Your task to perform on an android device: open app "Fetch Rewards" Image 0: 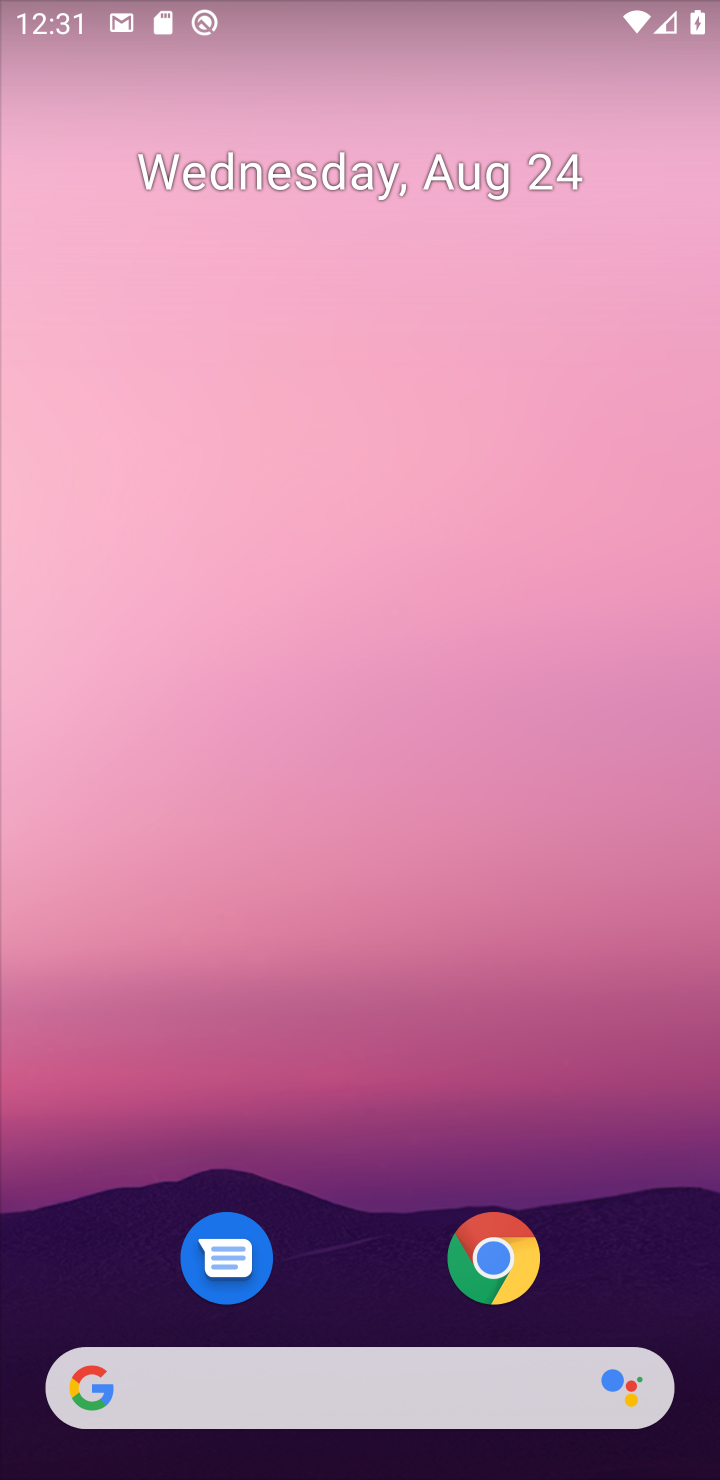
Step 0: drag from (357, 1177) to (578, 319)
Your task to perform on an android device: open app "Fetch Rewards" Image 1: 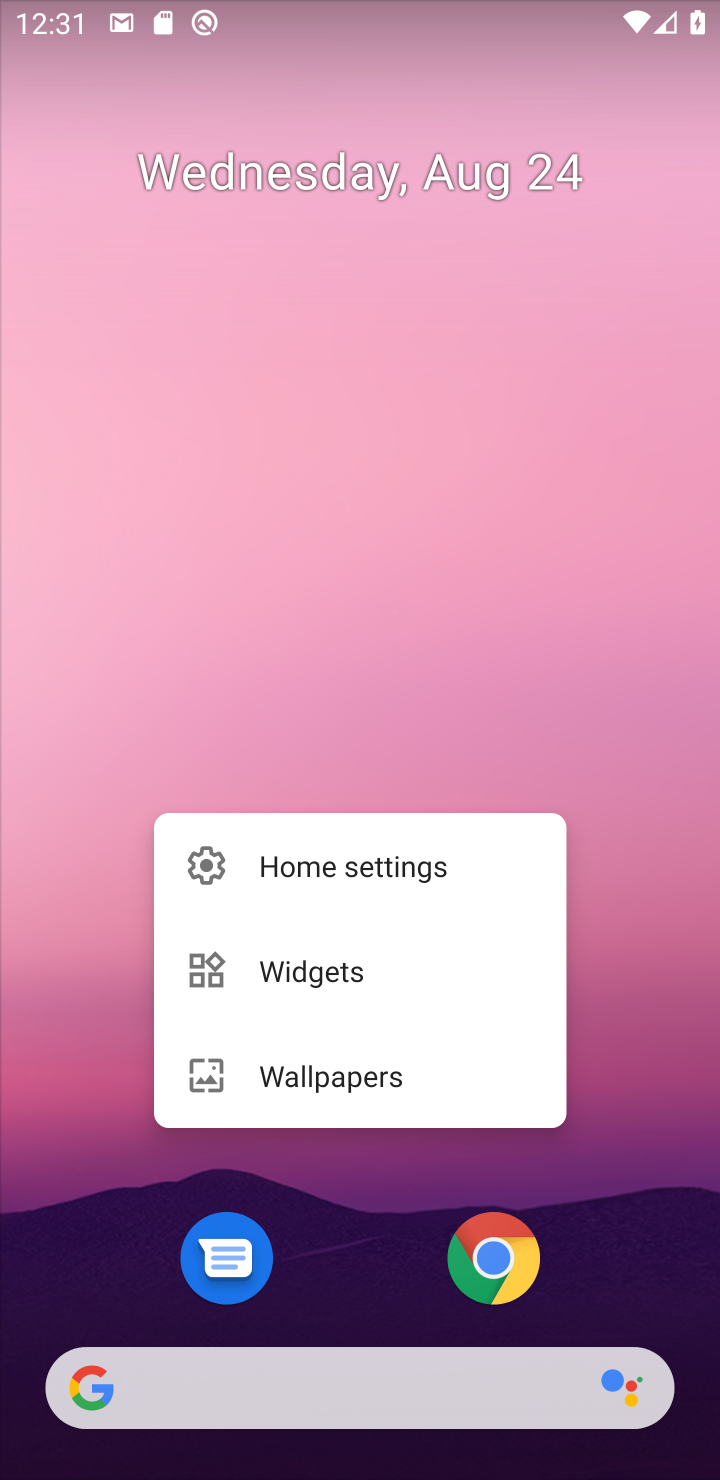
Step 1: drag from (381, 1261) to (463, 57)
Your task to perform on an android device: open app "Fetch Rewards" Image 2: 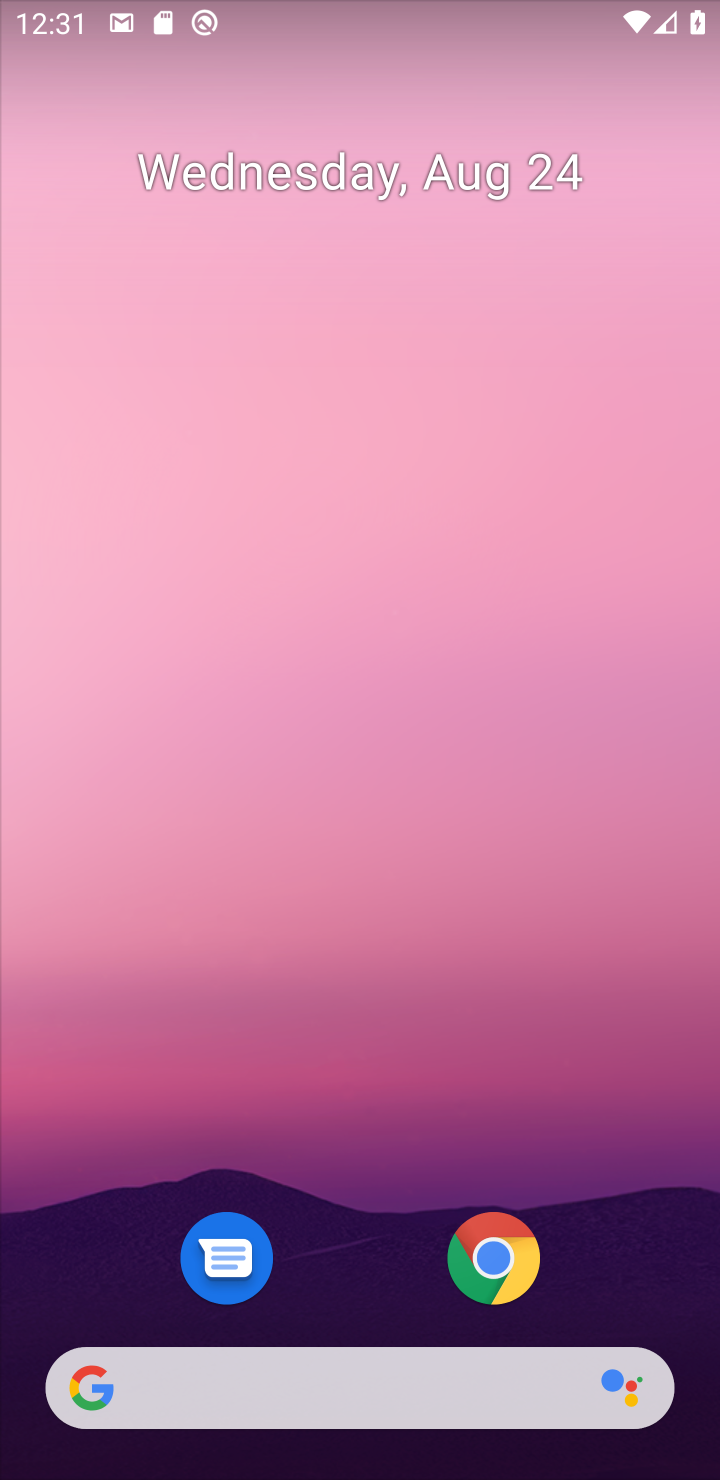
Step 2: drag from (376, 409) to (474, 17)
Your task to perform on an android device: open app "Fetch Rewards" Image 3: 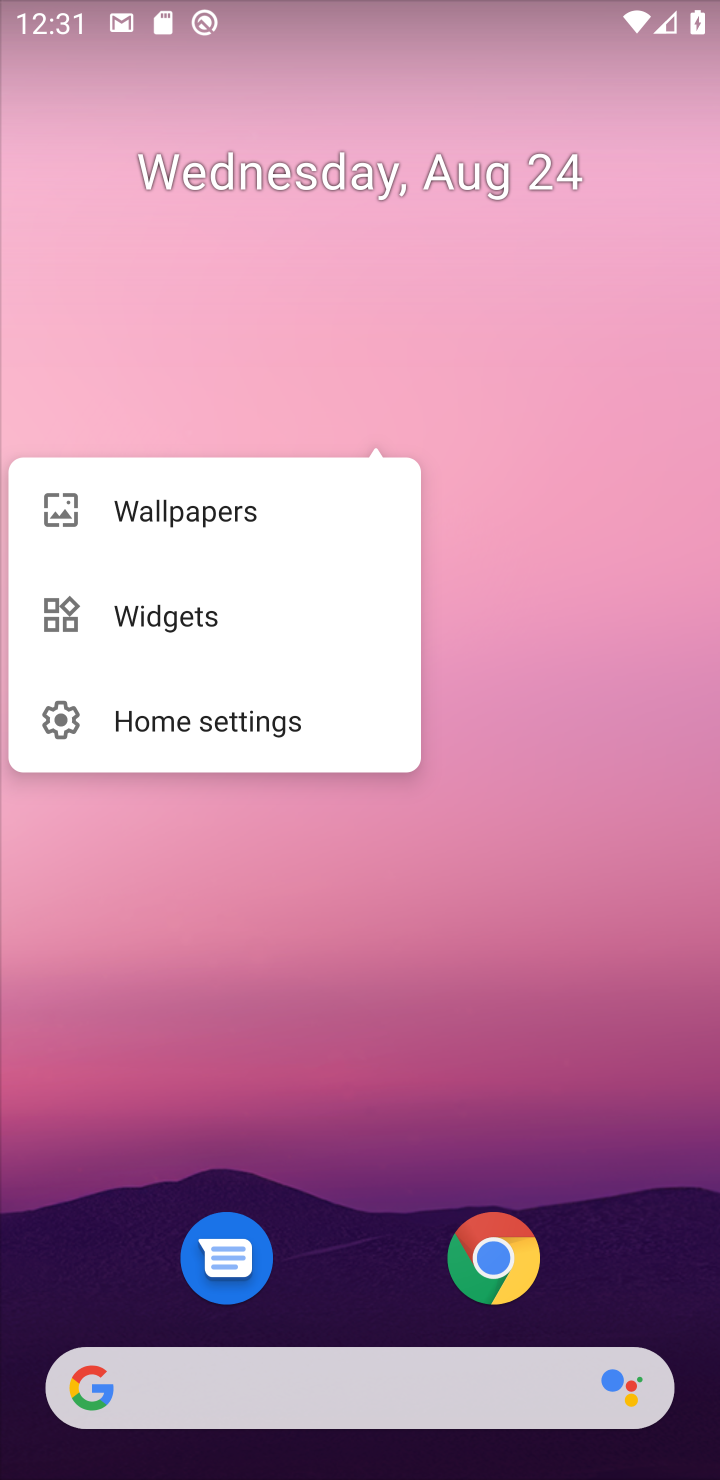
Step 3: click (492, 847)
Your task to perform on an android device: open app "Fetch Rewards" Image 4: 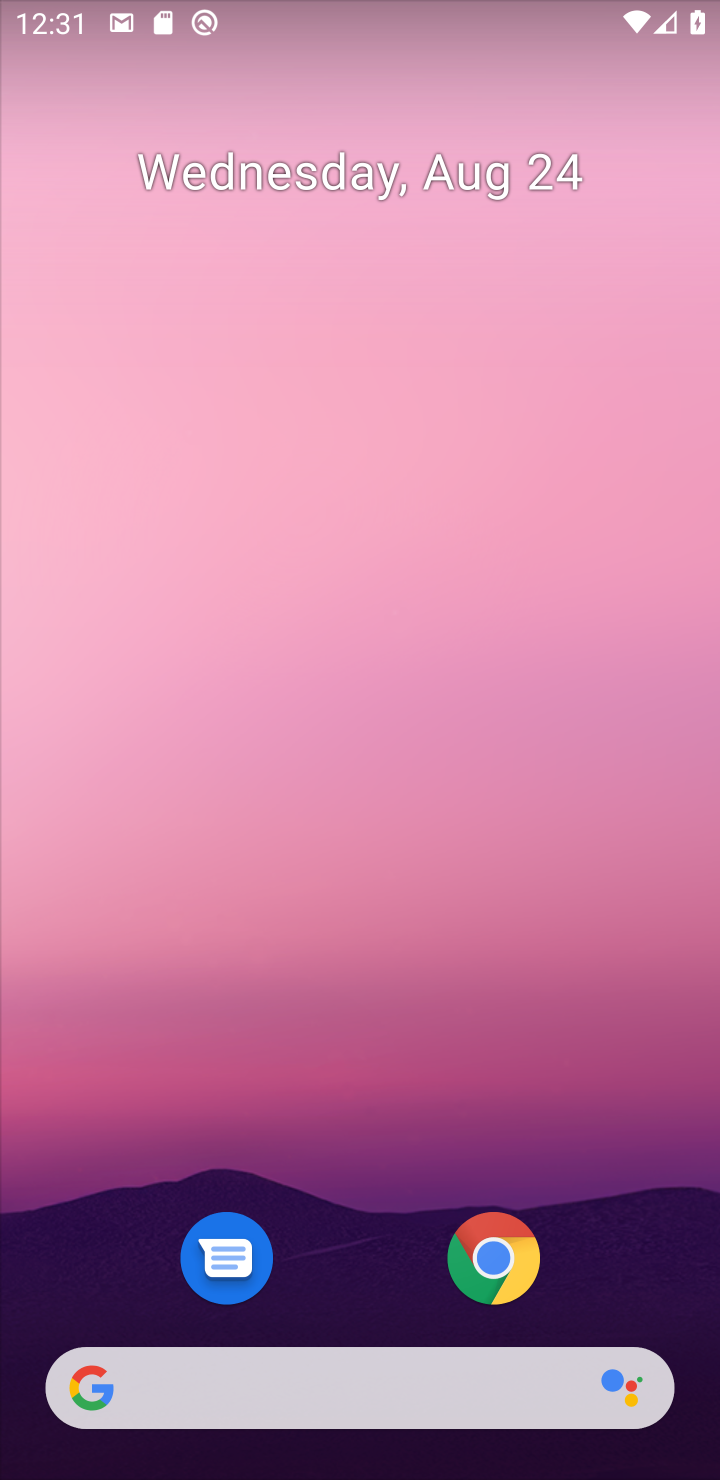
Step 4: drag from (351, 1298) to (318, 552)
Your task to perform on an android device: open app "Fetch Rewards" Image 5: 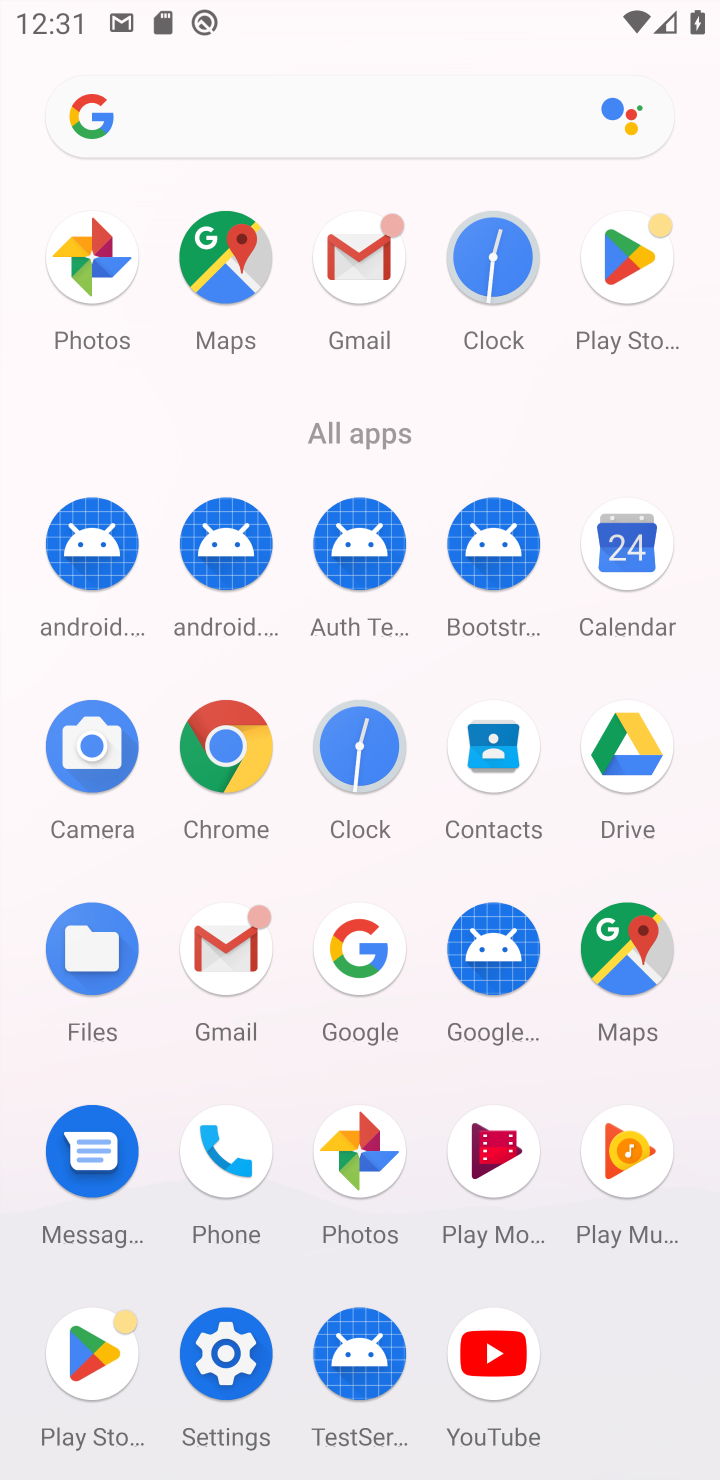
Step 5: click (93, 1346)
Your task to perform on an android device: open app "Fetch Rewards" Image 6: 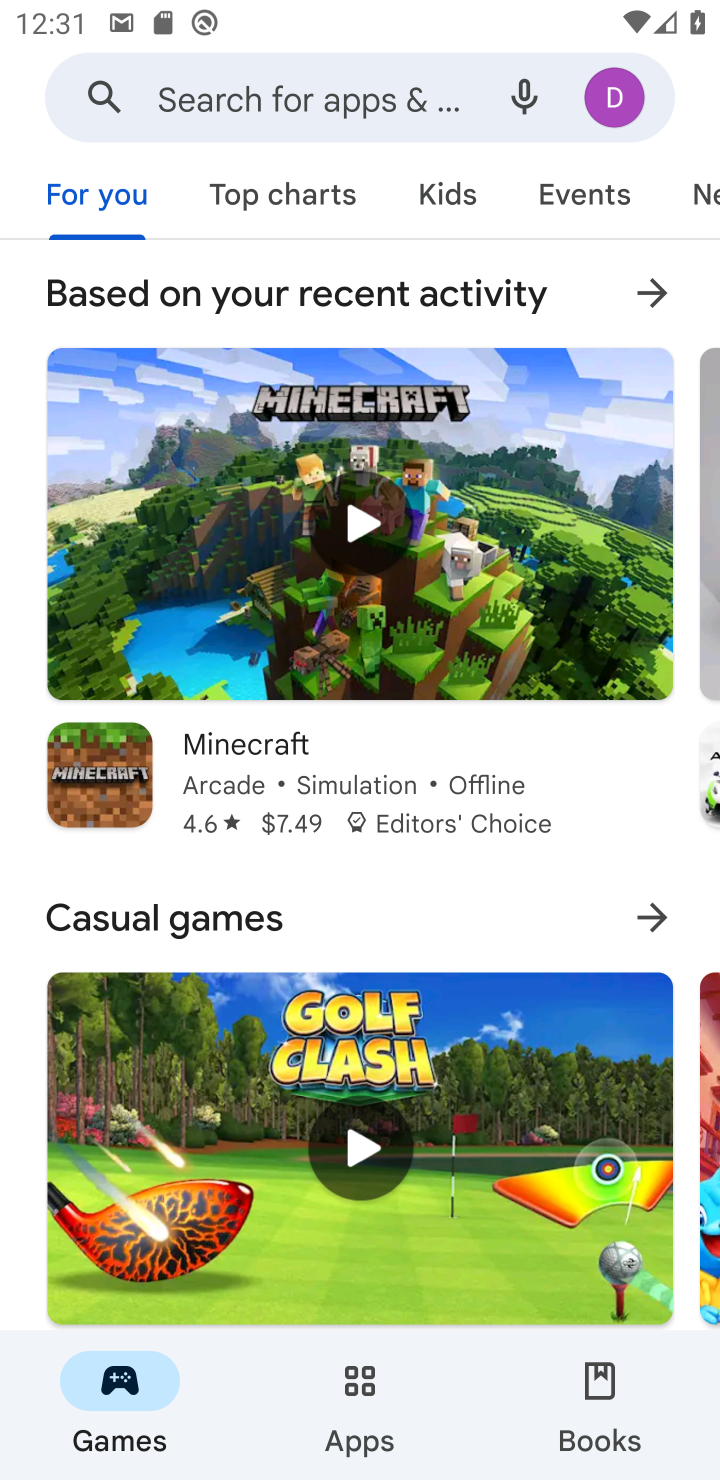
Step 6: click (271, 97)
Your task to perform on an android device: open app "Fetch Rewards" Image 7: 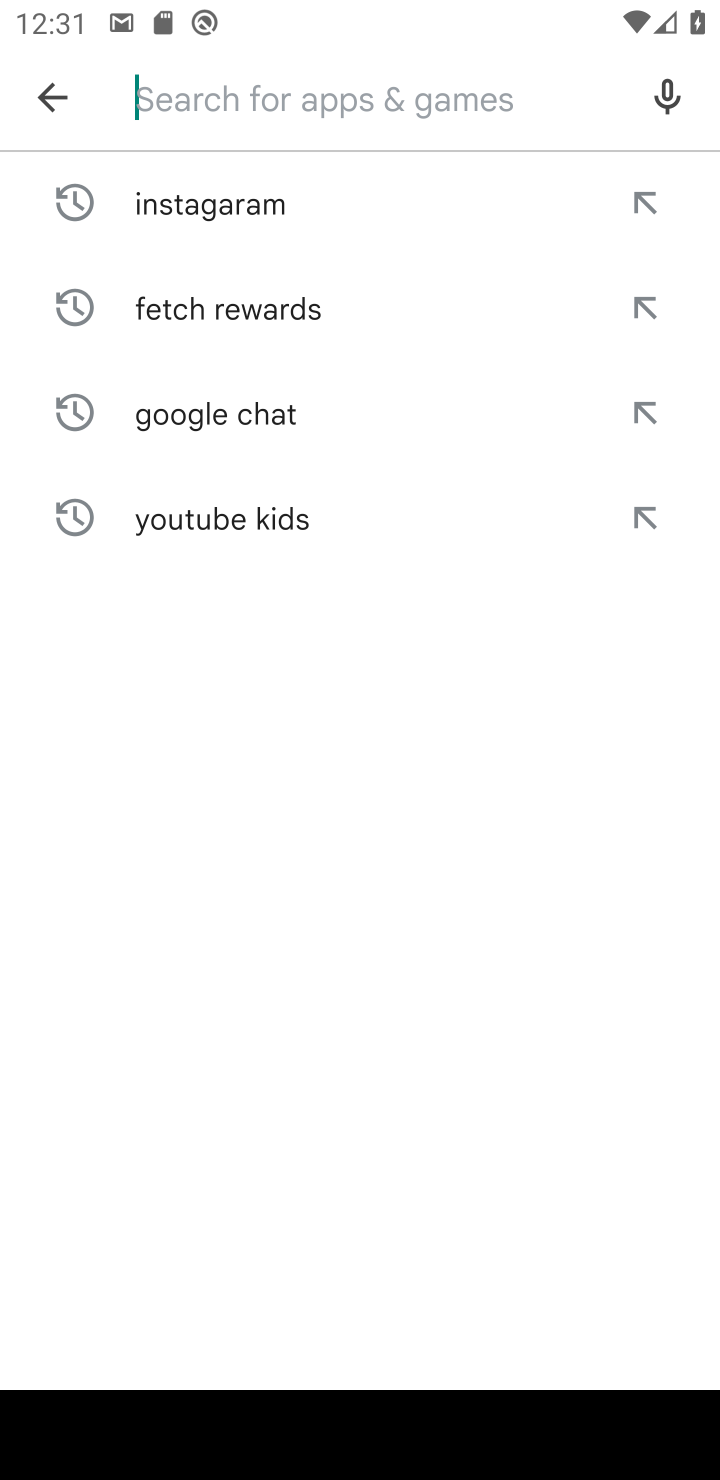
Step 7: type "fetch rewards"
Your task to perform on an android device: open app "Fetch Rewards" Image 8: 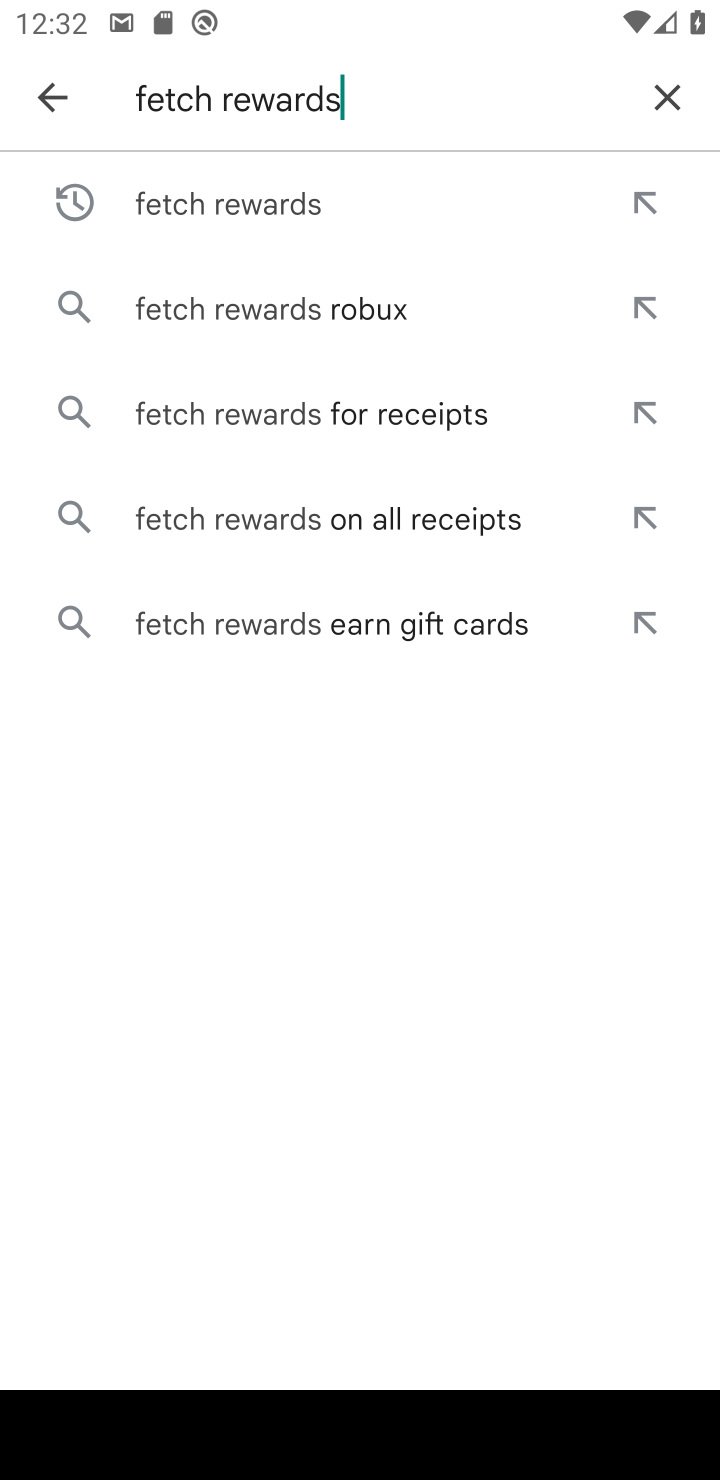
Step 8: click (261, 217)
Your task to perform on an android device: open app "Fetch Rewards" Image 9: 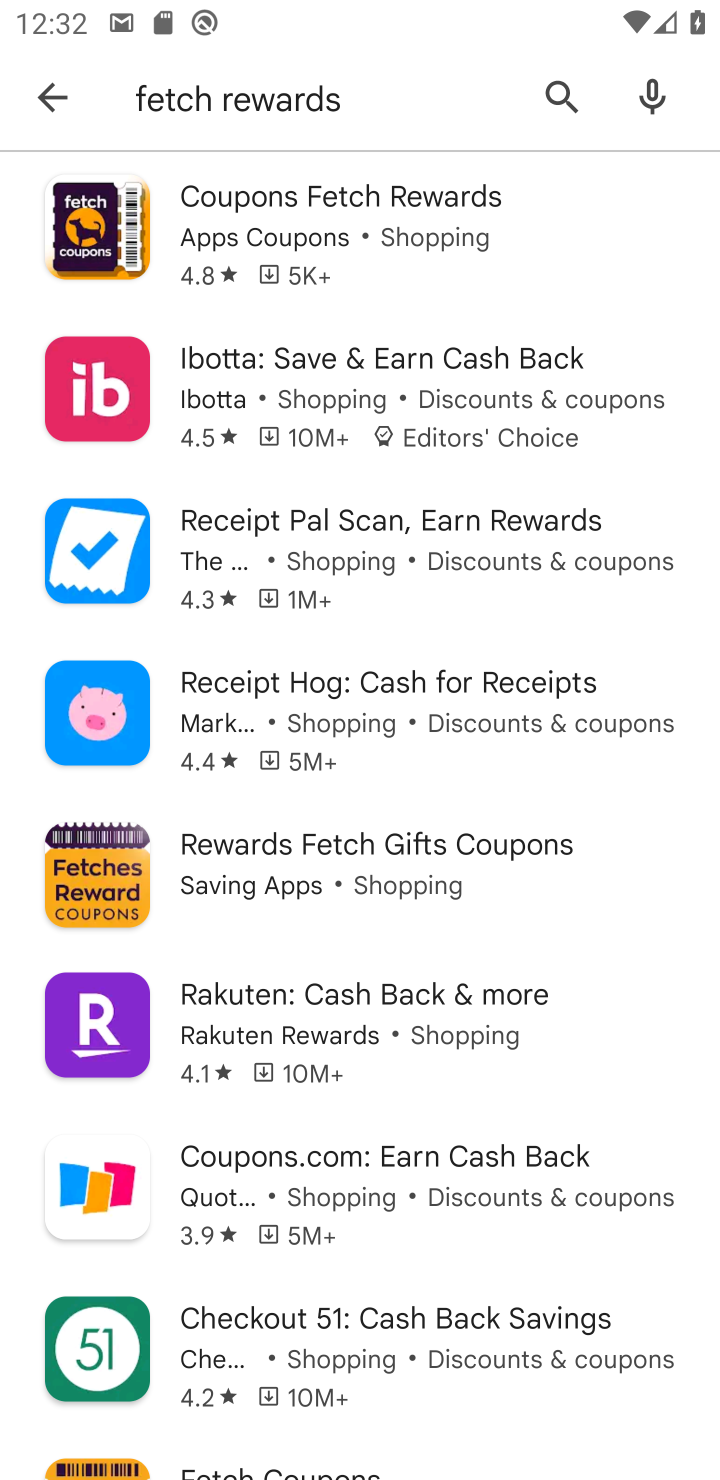
Step 9: task complete